Your task to perform on an android device: Go to battery settings Image 0: 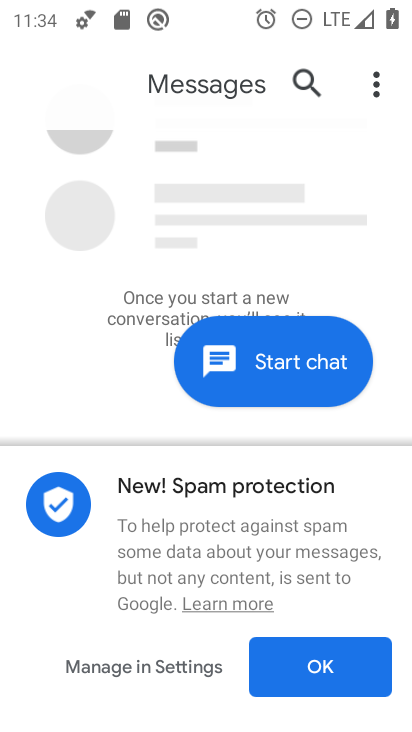
Step 0: press home button
Your task to perform on an android device: Go to battery settings Image 1: 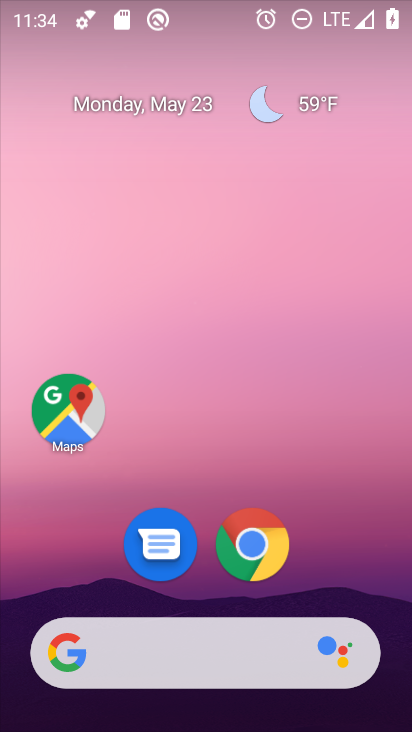
Step 1: drag from (379, 562) to (336, 191)
Your task to perform on an android device: Go to battery settings Image 2: 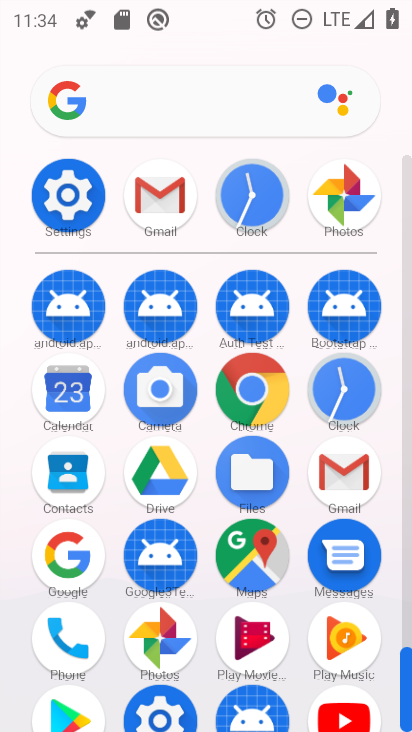
Step 2: drag from (404, 629) to (410, 579)
Your task to perform on an android device: Go to battery settings Image 3: 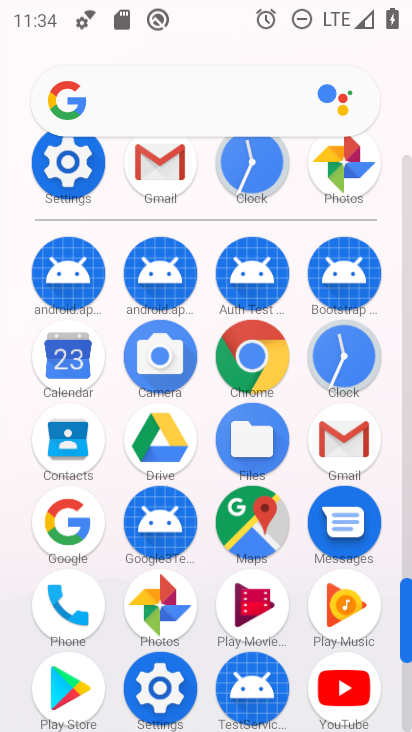
Step 3: click (160, 689)
Your task to perform on an android device: Go to battery settings Image 4: 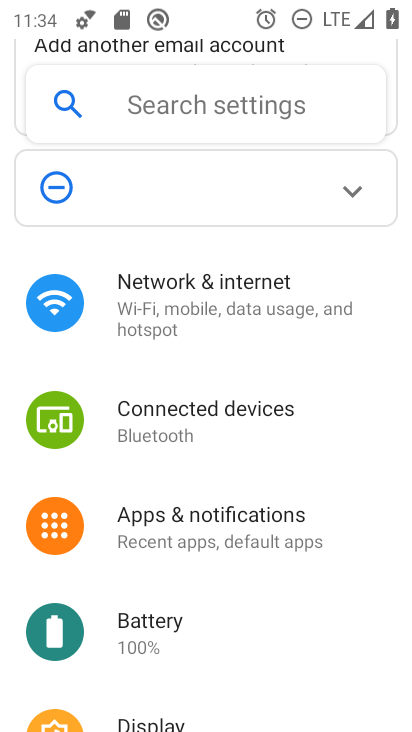
Step 4: click (145, 643)
Your task to perform on an android device: Go to battery settings Image 5: 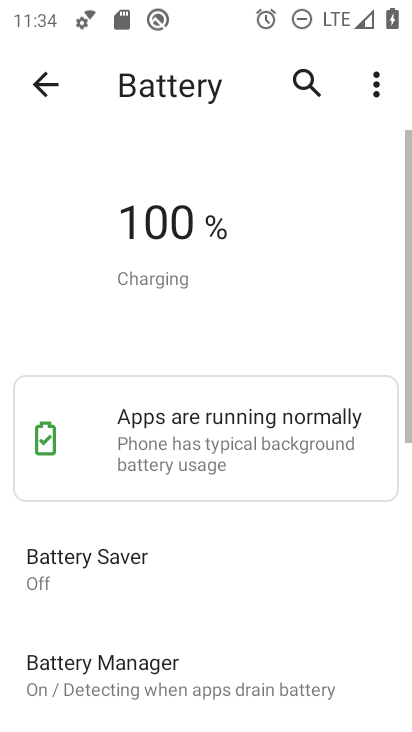
Step 5: task complete